Your task to perform on an android device: set the stopwatch Image 0: 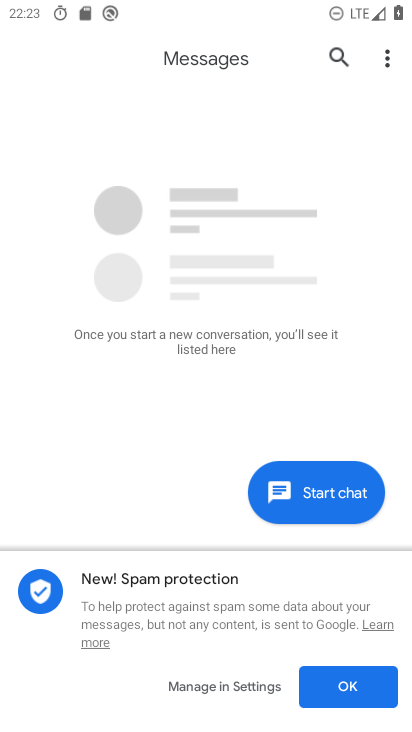
Step 0: press home button
Your task to perform on an android device: set the stopwatch Image 1: 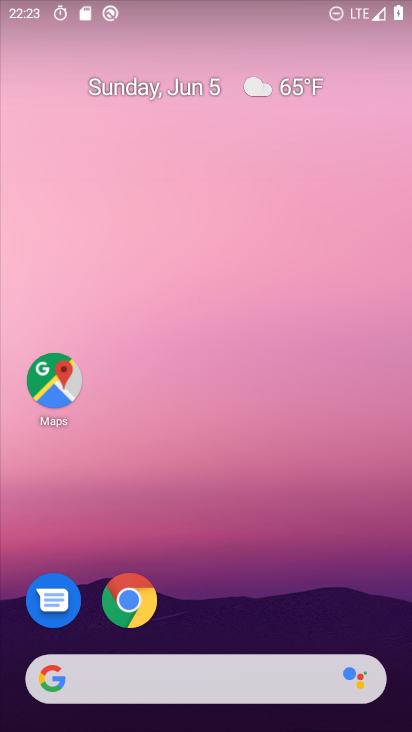
Step 1: drag from (272, 479) to (258, 92)
Your task to perform on an android device: set the stopwatch Image 2: 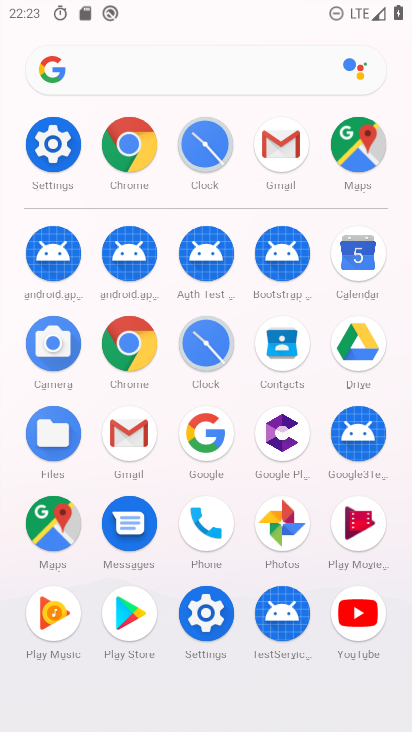
Step 2: click (200, 347)
Your task to perform on an android device: set the stopwatch Image 3: 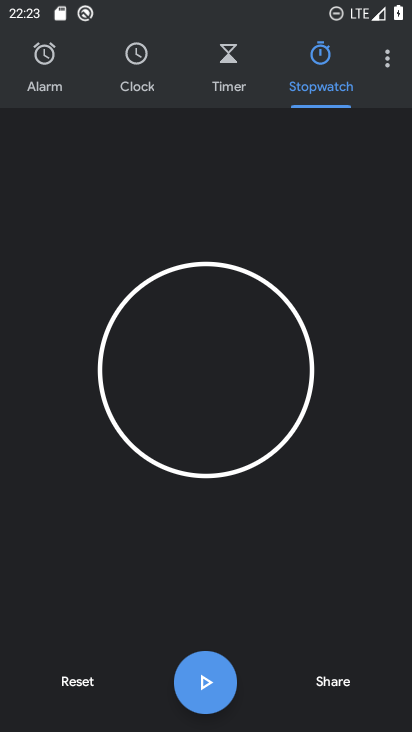
Step 3: task complete